Your task to perform on an android device: Go to Yahoo.com Image 0: 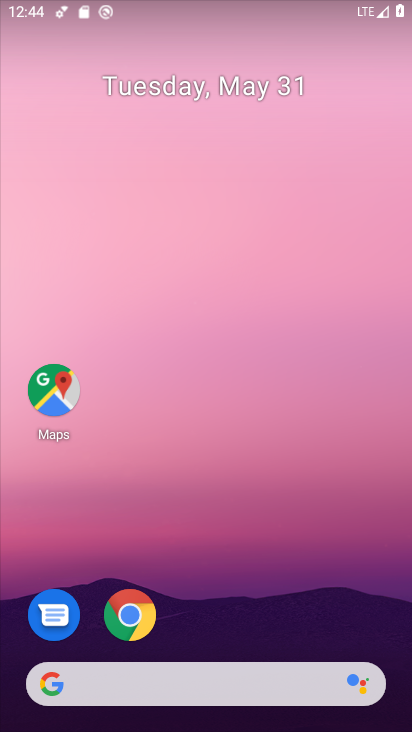
Step 0: click (123, 626)
Your task to perform on an android device: Go to Yahoo.com Image 1: 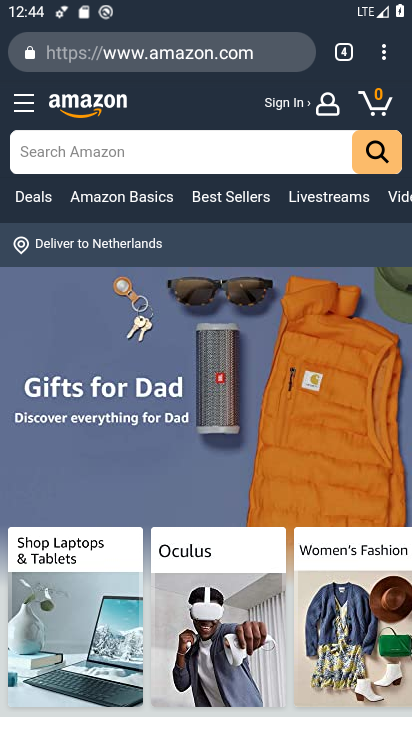
Step 1: click (193, 58)
Your task to perform on an android device: Go to Yahoo.com Image 2: 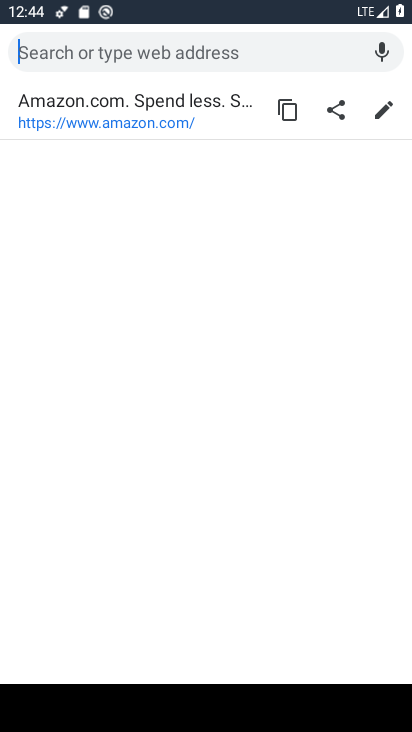
Step 2: type "Yahoo.com"
Your task to perform on an android device: Go to Yahoo.com Image 3: 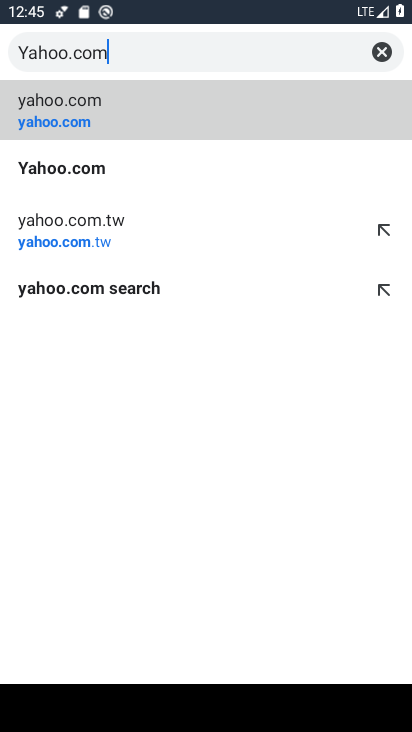
Step 3: click (142, 122)
Your task to perform on an android device: Go to Yahoo.com Image 4: 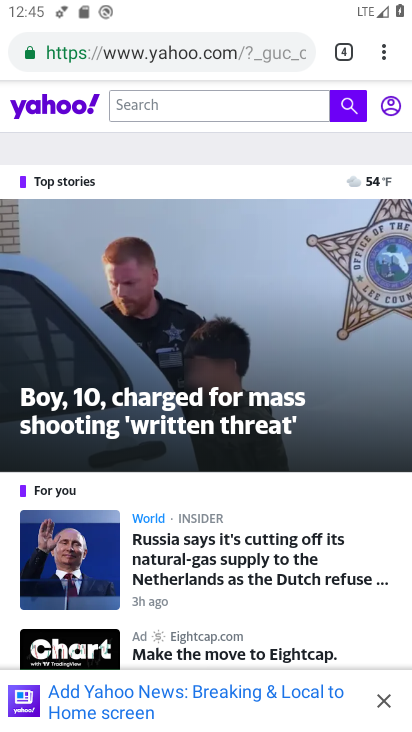
Step 4: task complete